Your task to perform on an android device: turn on sleep mode Image 0: 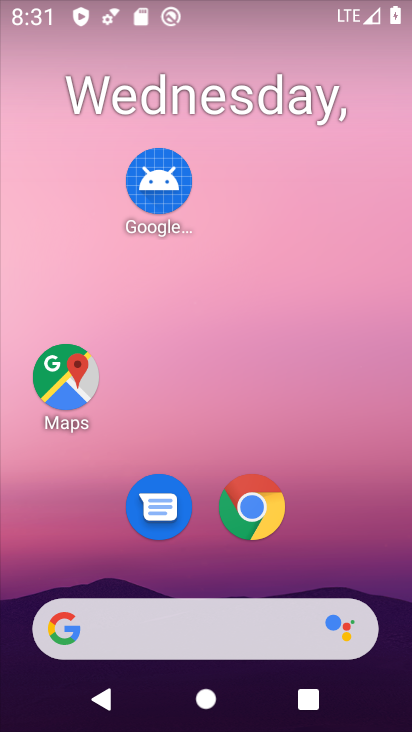
Step 0: drag from (190, 582) to (172, 10)
Your task to perform on an android device: turn on sleep mode Image 1: 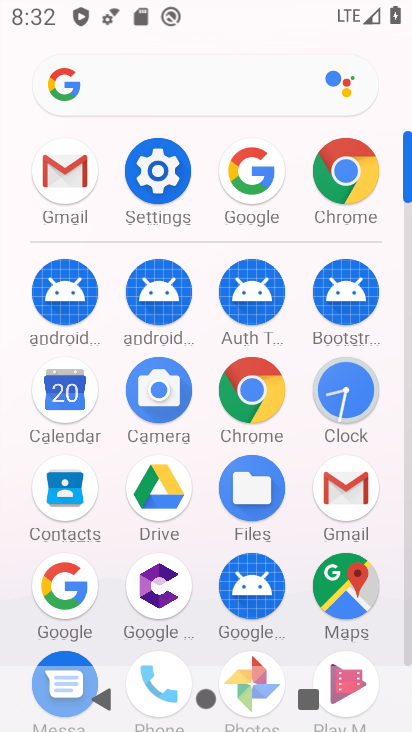
Step 1: click (169, 182)
Your task to perform on an android device: turn on sleep mode Image 2: 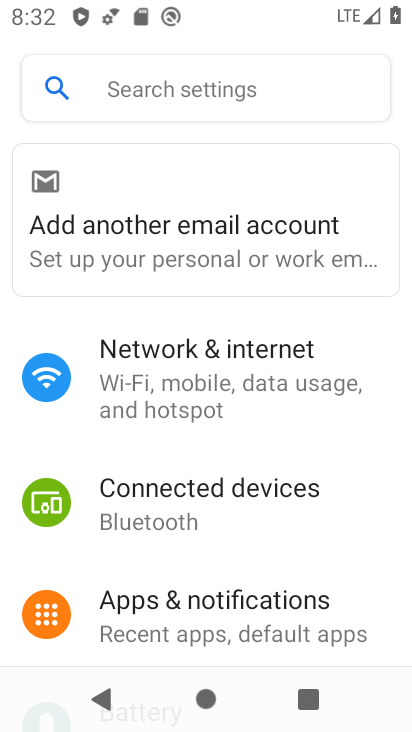
Step 2: drag from (280, 523) to (267, 122)
Your task to perform on an android device: turn on sleep mode Image 3: 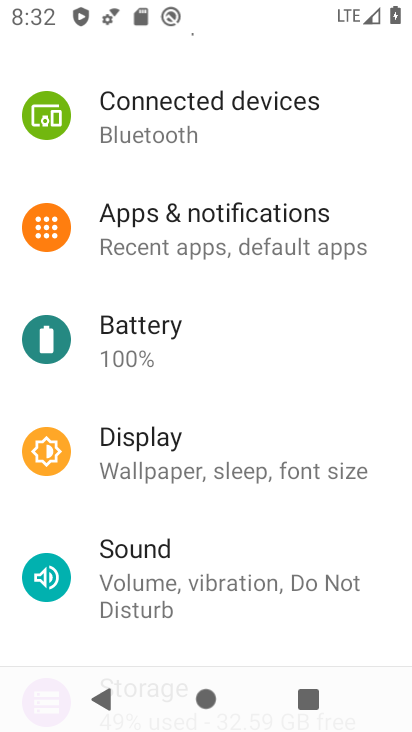
Step 3: click (210, 461)
Your task to perform on an android device: turn on sleep mode Image 4: 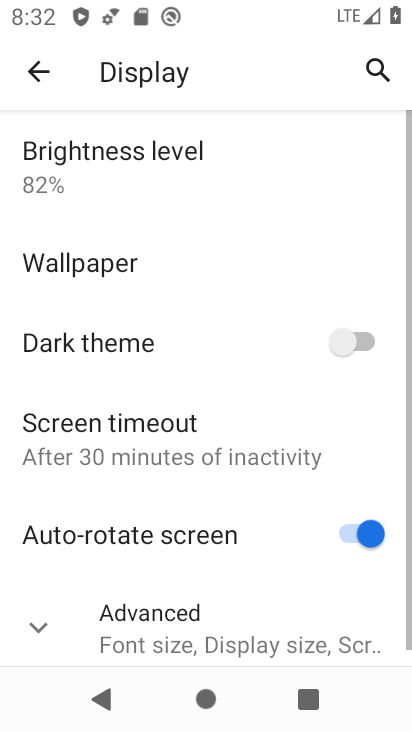
Step 4: drag from (225, 580) to (239, 140)
Your task to perform on an android device: turn on sleep mode Image 5: 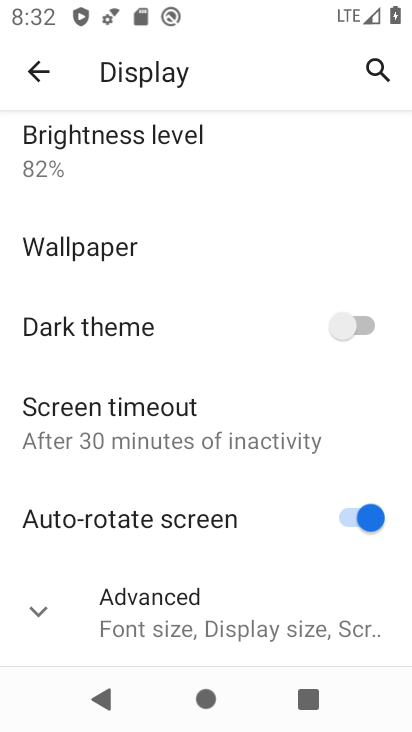
Step 5: click (197, 585)
Your task to perform on an android device: turn on sleep mode Image 6: 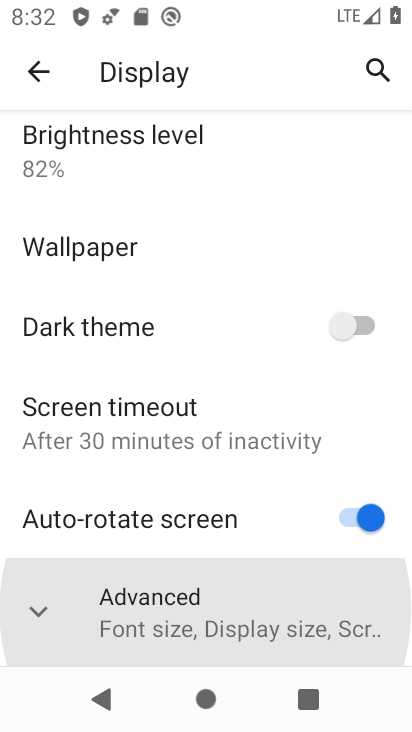
Step 6: task complete